Your task to perform on an android device: Open Google Chrome and open the bookmarks view Image 0: 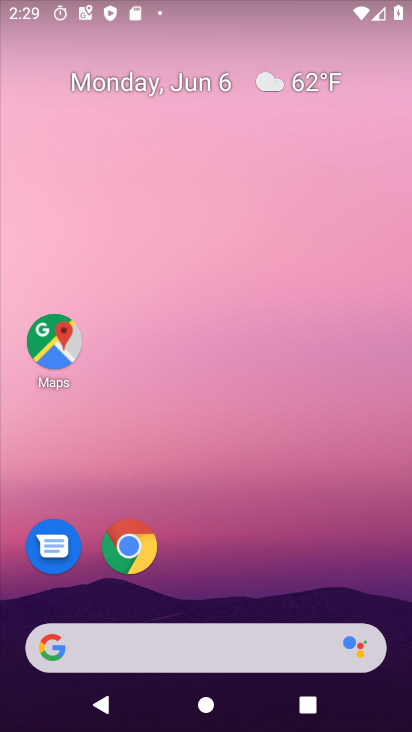
Step 0: click (129, 539)
Your task to perform on an android device: Open Google Chrome and open the bookmarks view Image 1: 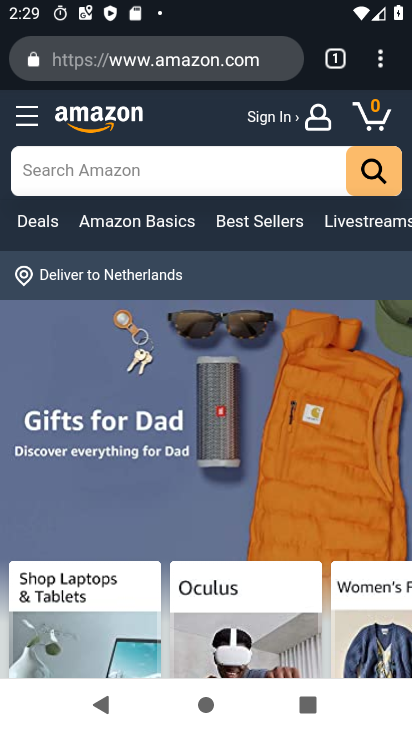
Step 1: click (386, 63)
Your task to perform on an android device: Open Google Chrome and open the bookmarks view Image 2: 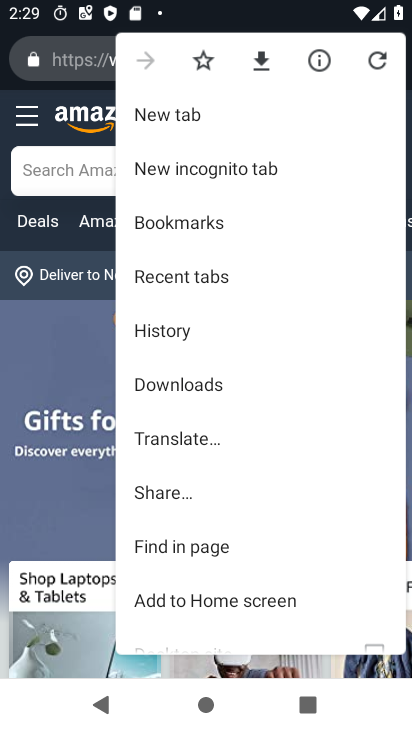
Step 2: click (248, 229)
Your task to perform on an android device: Open Google Chrome and open the bookmarks view Image 3: 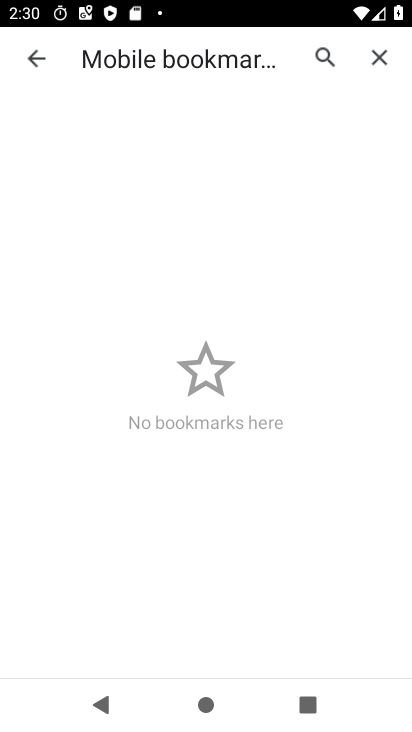
Step 3: task complete